Your task to perform on an android device: set the stopwatch Image 0: 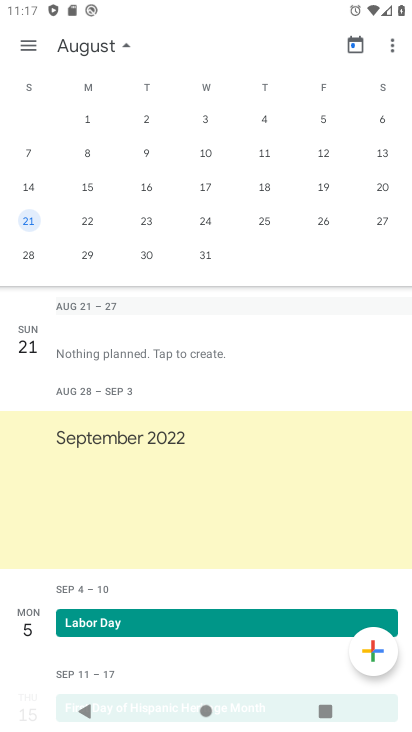
Step 0: press home button
Your task to perform on an android device: set the stopwatch Image 1: 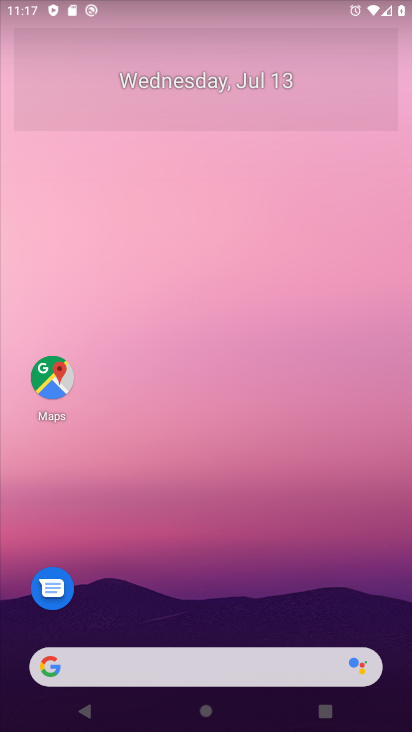
Step 1: drag from (235, 533) to (239, 99)
Your task to perform on an android device: set the stopwatch Image 2: 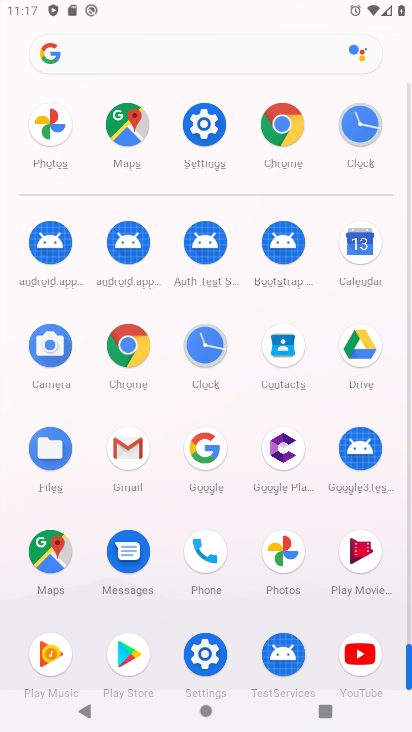
Step 2: click (200, 340)
Your task to perform on an android device: set the stopwatch Image 3: 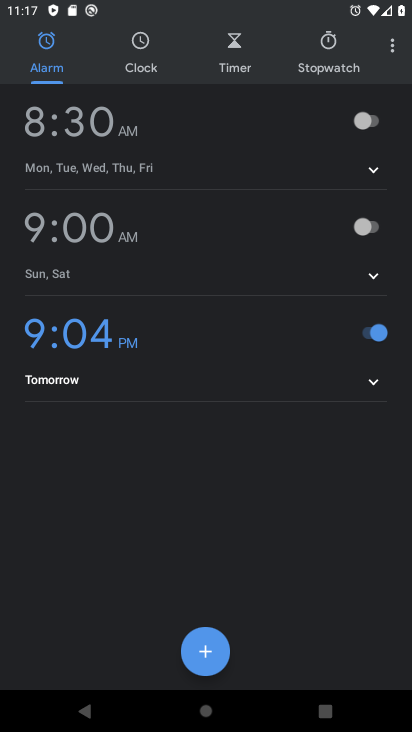
Step 3: click (320, 53)
Your task to perform on an android device: set the stopwatch Image 4: 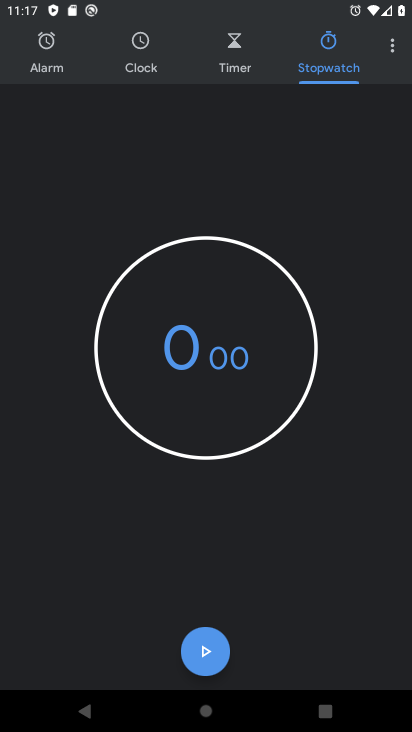
Step 4: click (203, 654)
Your task to perform on an android device: set the stopwatch Image 5: 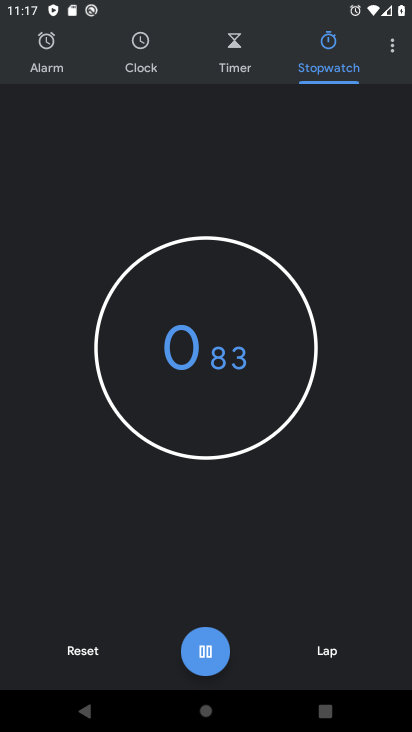
Step 5: click (203, 654)
Your task to perform on an android device: set the stopwatch Image 6: 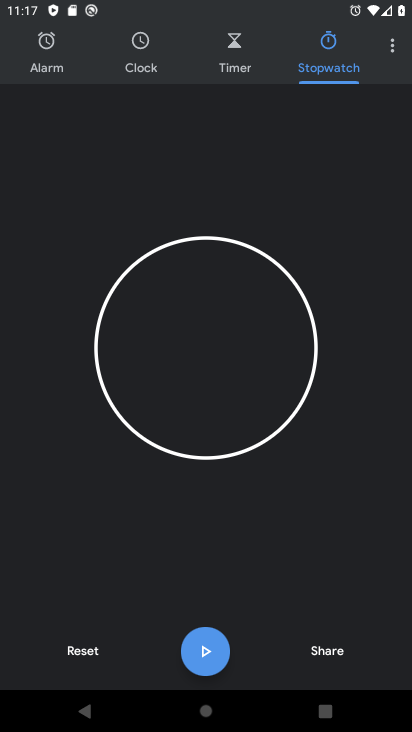
Step 6: task complete